Your task to perform on an android device: change notification settings in the gmail app Image 0: 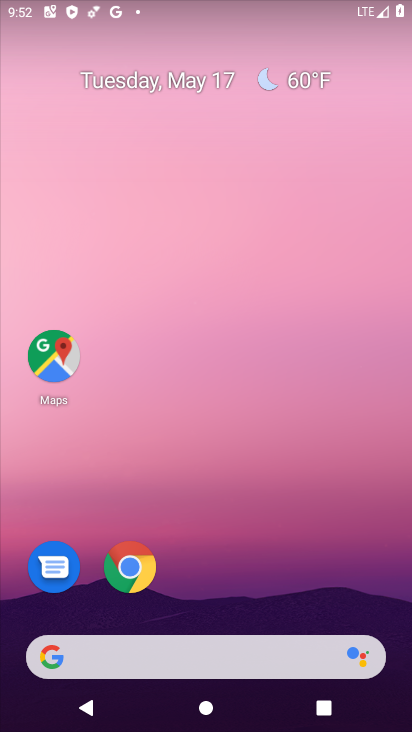
Step 0: drag from (366, 596) to (289, 87)
Your task to perform on an android device: change notification settings in the gmail app Image 1: 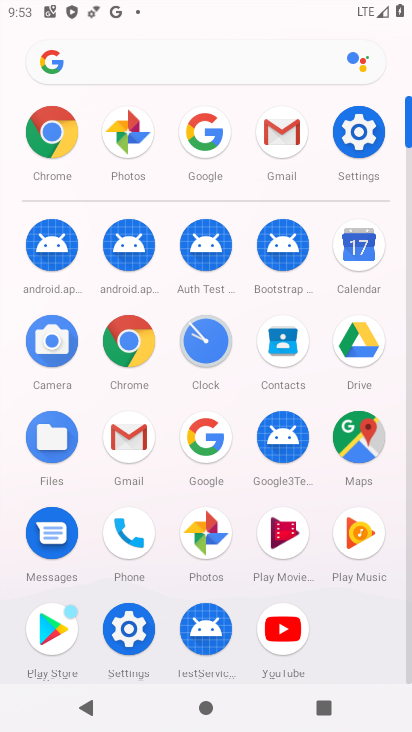
Step 1: click (127, 434)
Your task to perform on an android device: change notification settings in the gmail app Image 2: 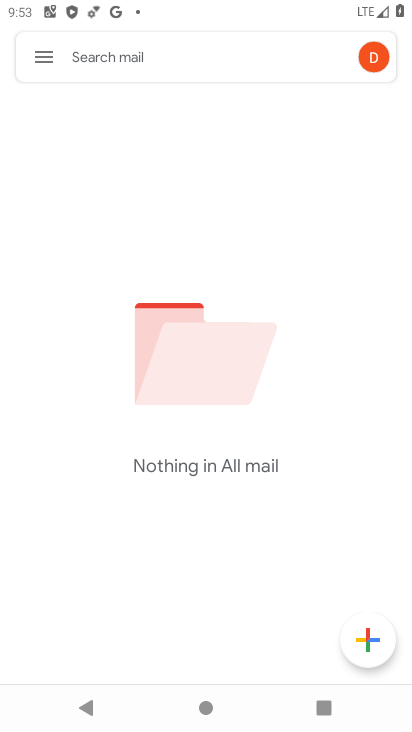
Step 2: click (37, 58)
Your task to perform on an android device: change notification settings in the gmail app Image 3: 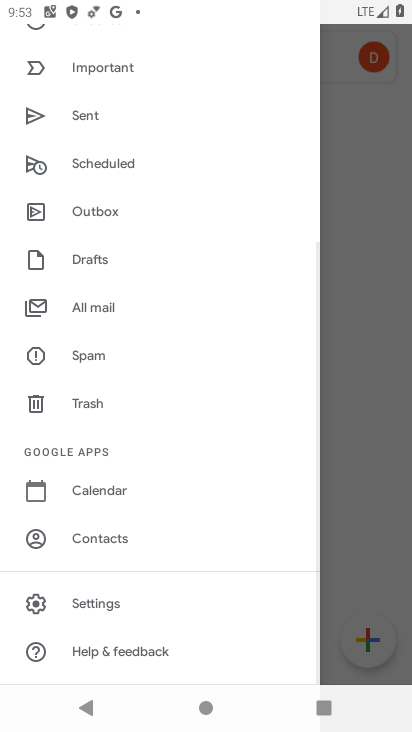
Step 3: click (135, 612)
Your task to perform on an android device: change notification settings in the gmail app Image 4: 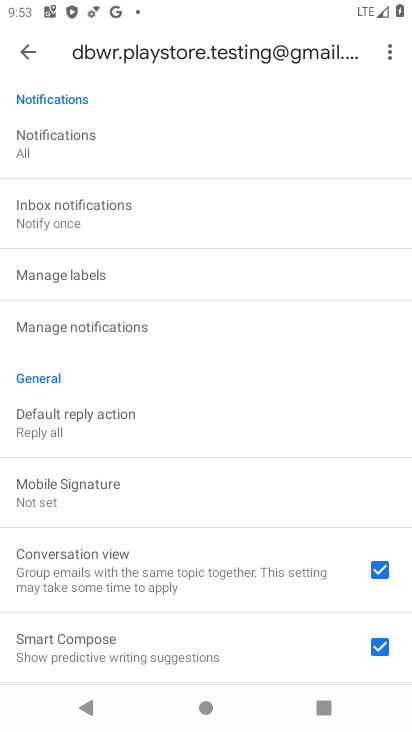
Step 4: click (126, 159)
Your task to perform on an android device: change notification settings in the gmail app Image 5: 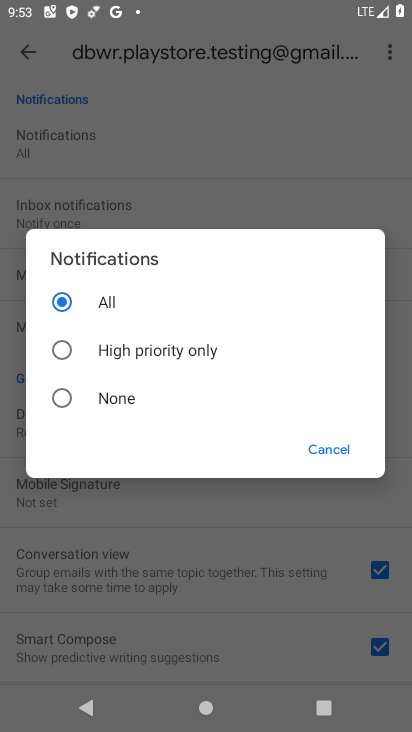
Step 5: click (103, 398)
Your task to perform on an android device: change notification settings in the gmail app Image 6: 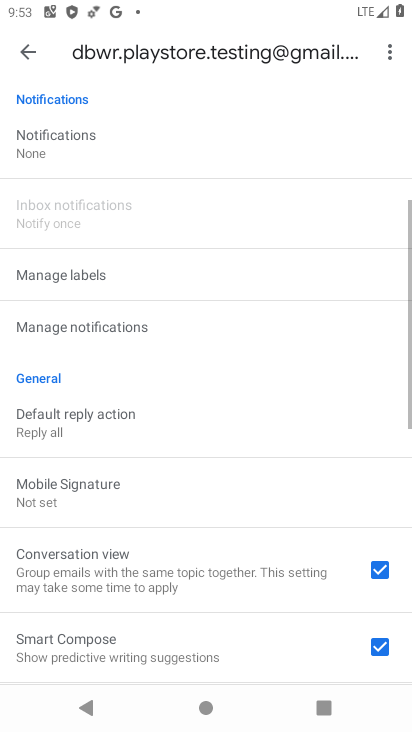
Step 6: task complete